Your task to perform on an android device: Open my contact list Image 0: 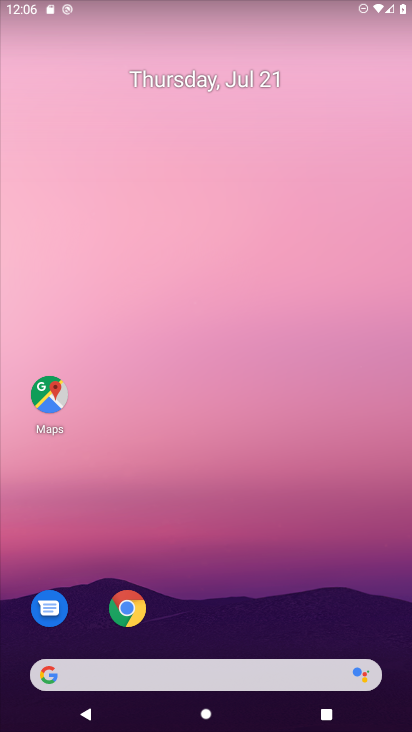
Step 0: press home button
Your task to perform on an android device: Open my contact list Image 1: 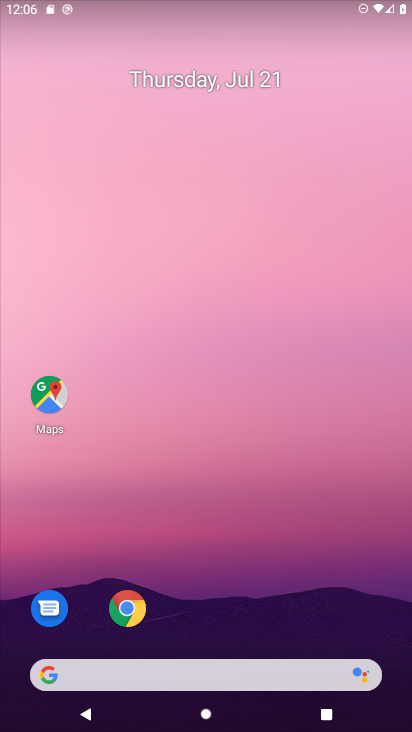
Step 1: drag from (235, 642) to (281, 82)
Your task to perform on an android device: Open my contact list Image 2: 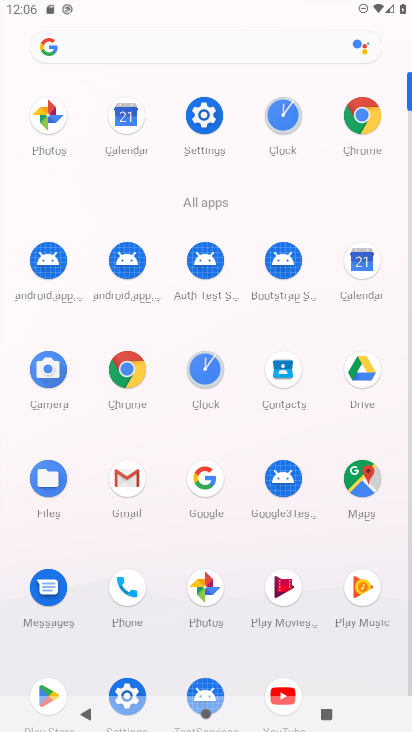
Step 2: click (287, 377)
Your task to perform on an android device: Open my contact list Image 3: 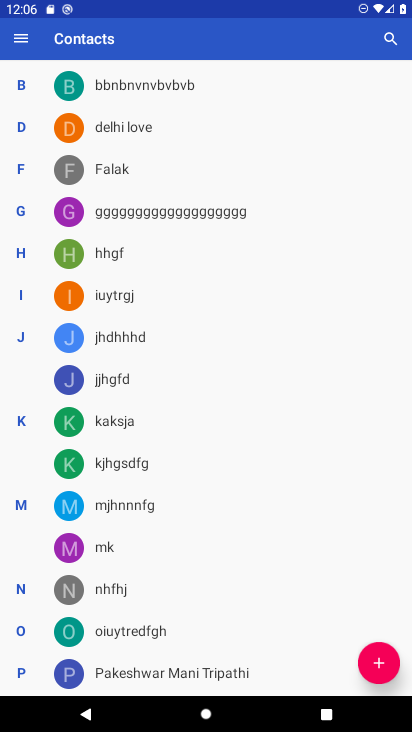
Step 3: task complete